Your task to perform on an android device: What's the weather today? Image 0: 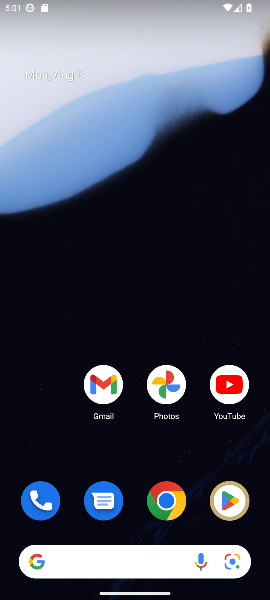
Step 0: click (86, 563)
Your task to perform on an android device: What's the weather today? Image 1: 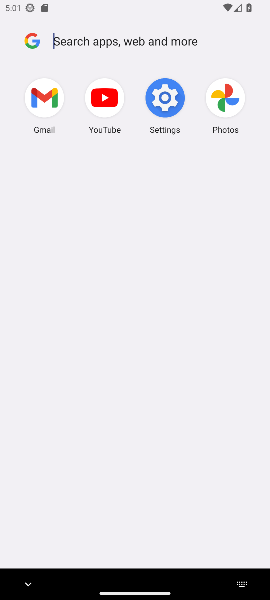
Step 1: type "What's the weather today?"
Your task to perform on an android device: What's the weather today? Image 2: 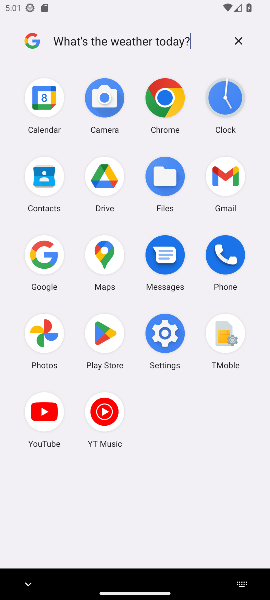
Step 2: type ""
Your task to perform on an android device: What's the weather today? Image 3: 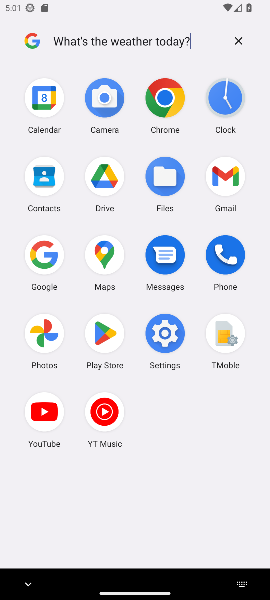
Step 3: type ""
Your task to perform on an android device: What's the weather today? Image 4: 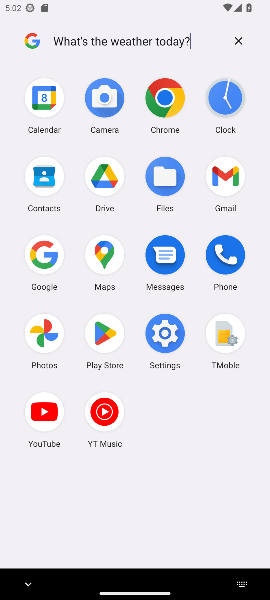
Step 4: task complete